Your task to perform on an android device: allow notifications from all sites in the chrome app Image 0: 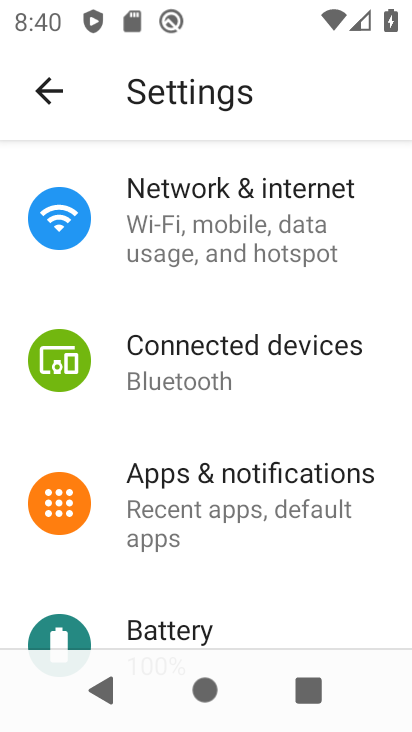
Step 0: press home button
Your task to perform on an android device: allow notifications from all sites in the chrome app Image 1: 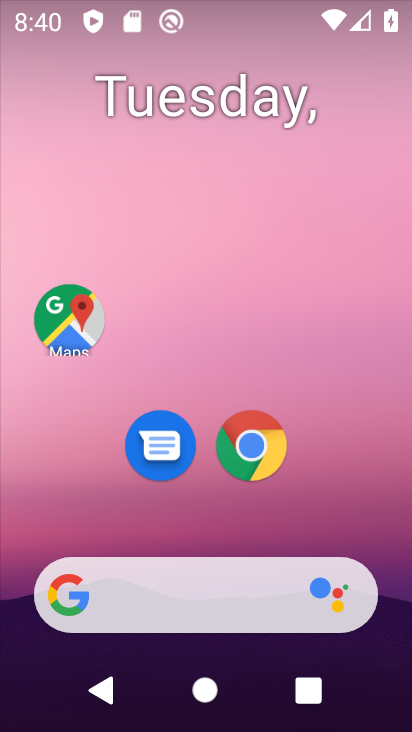
Step 1: click (249, 444)
Your task to perform on an android device: allow notifications from all sites in the chrome app Image 2: 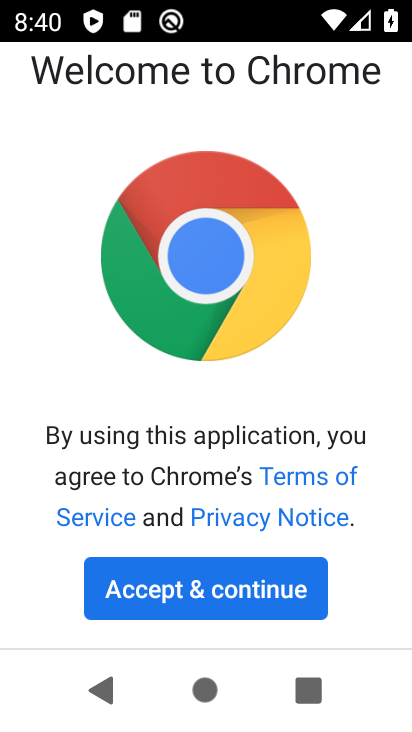
Step 2: click (224, 586)
Your task to perform on an android device: allow notifications from all sites in the chrome app Image 3: 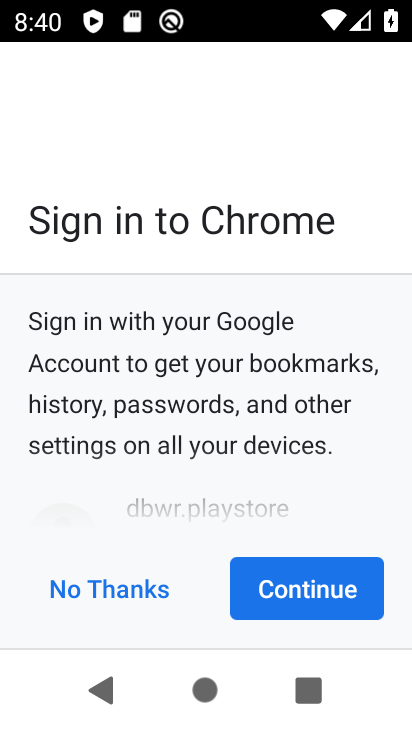
Step 3: click (269, 577)
Your task to perform on an android device: allow notifications from all sites in the chrome app Image 4: 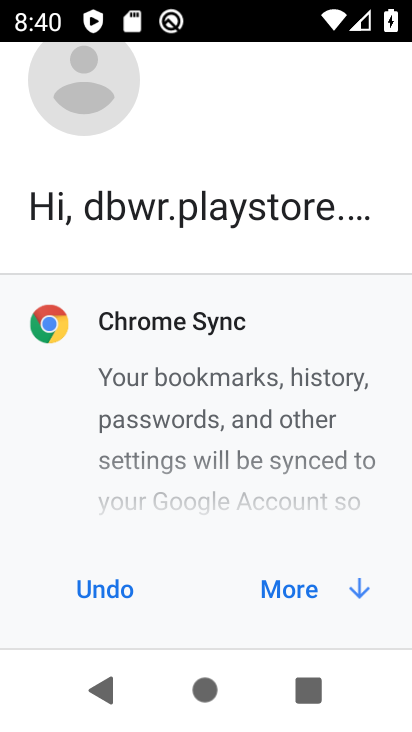
Step 4: click (269, 577)
Your task to perform on an android device: allow notifications from all sites in the chrome app Image 5: 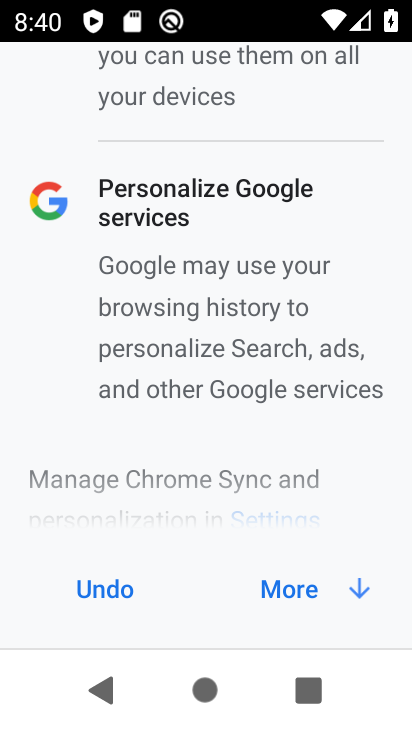
Step 5: click (269, 577)
Your task to perform on an android device: allow notifications from all sites in the chrome app Image 6: 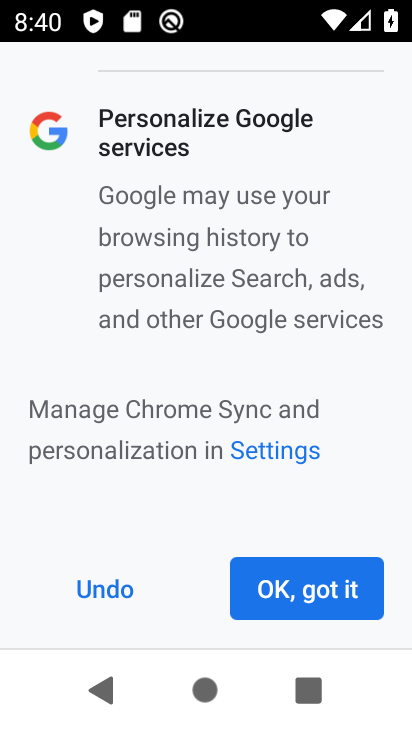
Step 6: click (269, 577)
Your task to perform on an android device: allow notifications from all sites in the chrome app Image 7: 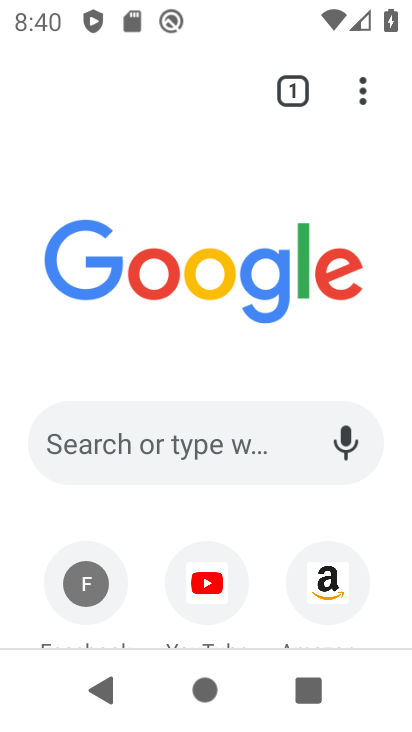
Step 7: click (378, 94)
Your task to perform on an android device: allow notifications from all sites in the chrome app Image 8: 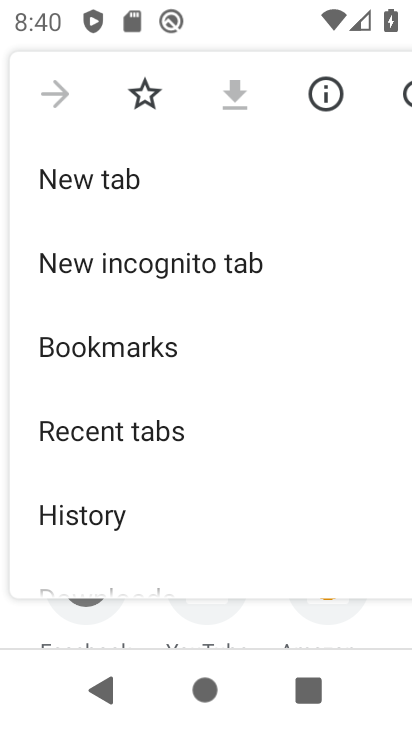
Step 8: drag from (188, 455) to (177, 205)
Your task to perform on an android device: allow notifications from all sites in the chrome app Image 9: 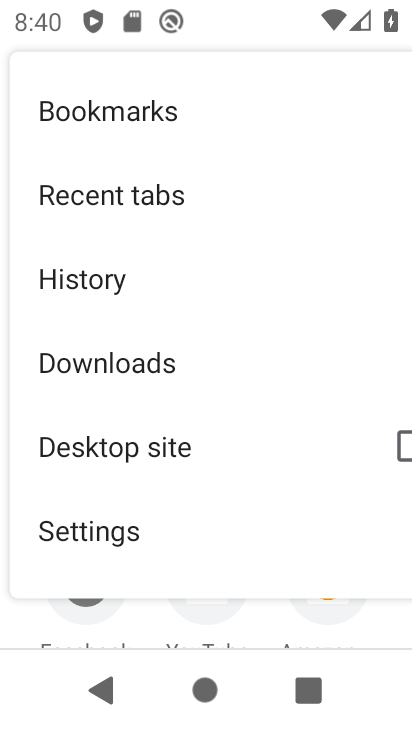
Step 9: click (134, 522)
Your task to perform on an android device: allow notifications from all sites in the chrome app Image 10: 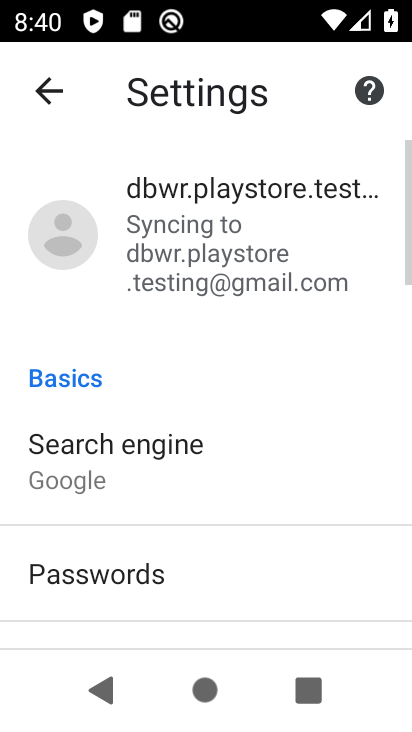
Step 10: drag from (165, 516) to (175, 129)
Your task to perform on an android device: allow notifications from all sites in the chrome app Image 11: 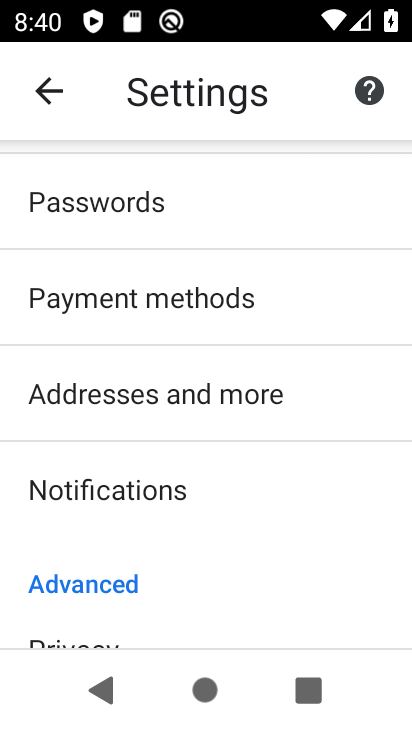
Step 11: click (196, 469)
Your task to perform on an android device: allow notifications from all sites in the chrome app Image 12: 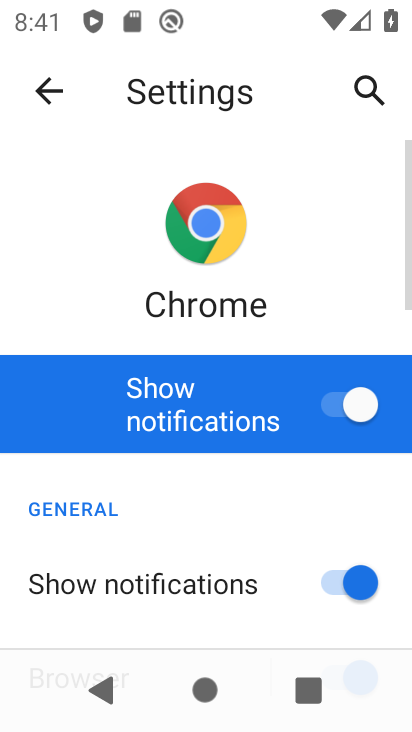
Step 12: task complete